Your task to perform on an android device: set an alarm Image 0: 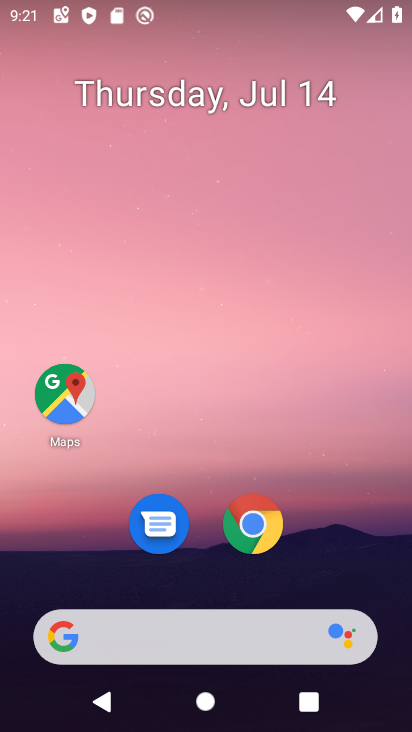
Step 0: drag from (318, 518) to (257, 59)
Your task to perform on an android device: set an alarm Image 1: 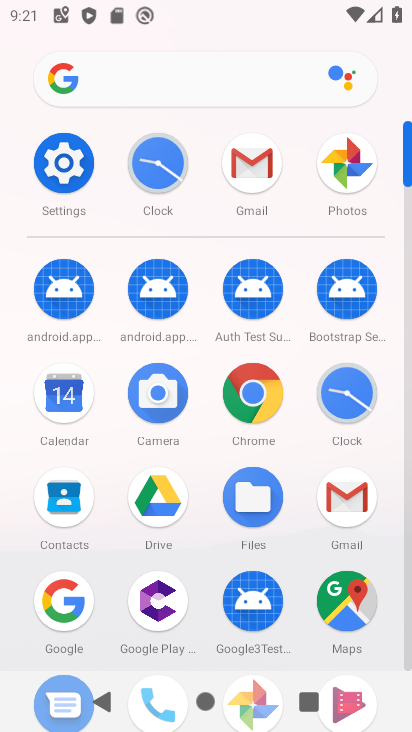
Step 1: click (165, 163)
Your task to perform on an android device: set an alarm Image 2: 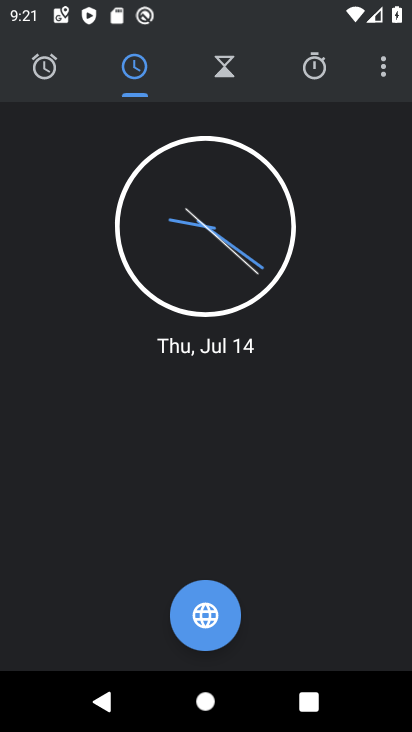
Step 2: click (53, 91)
Your task to perform on an android device: set an alarm Image 3: 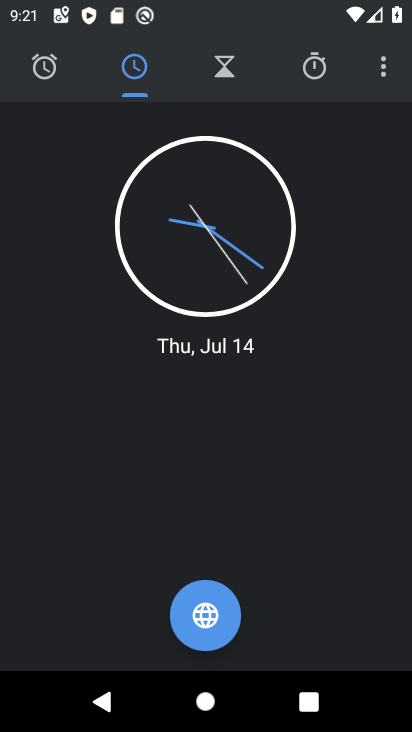
Step 3: click (45, 77)
Your task to perform on an android device: set an alarm Image 4: 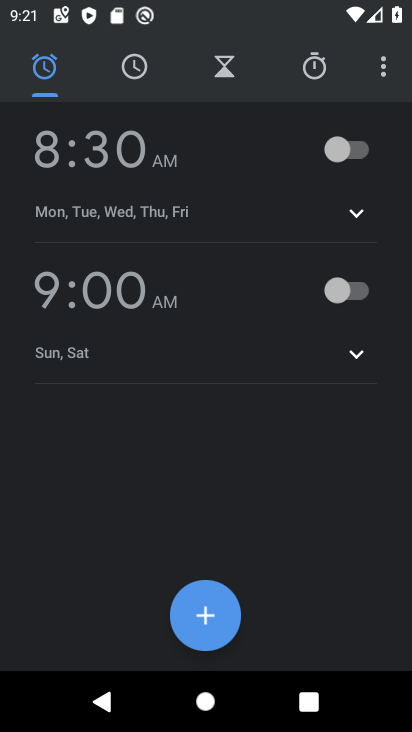
Step 4: click (222, 618)
Your task to perform on an android device: set an alarm Image 5: 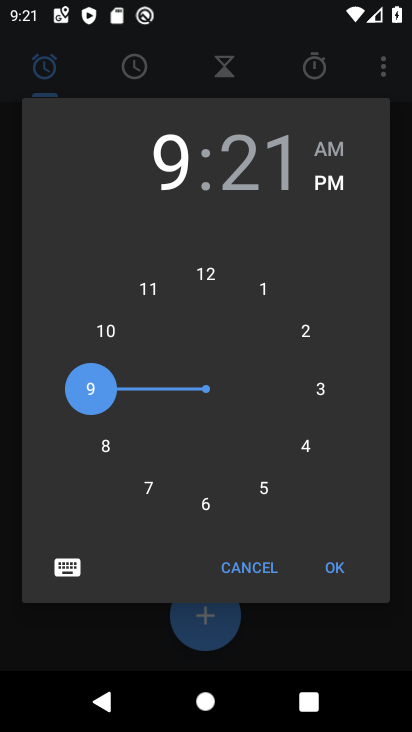
Step 5: click (276, 177)
Your task to perform on an android device: set an alarm Image 6: 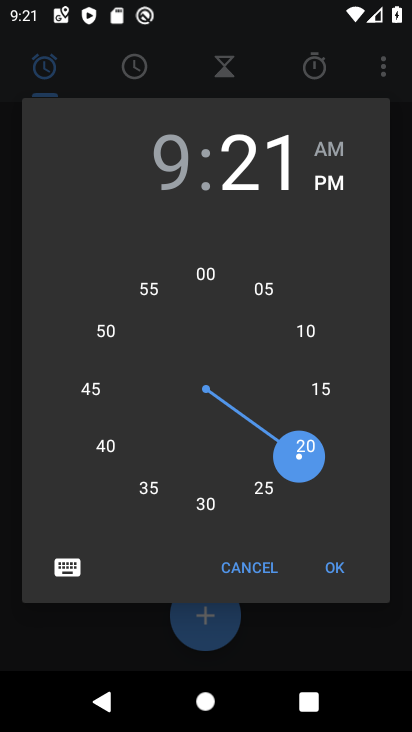
Step 6: click (208, 280)
Your task to perform on an android device: set an alarm Image 7: 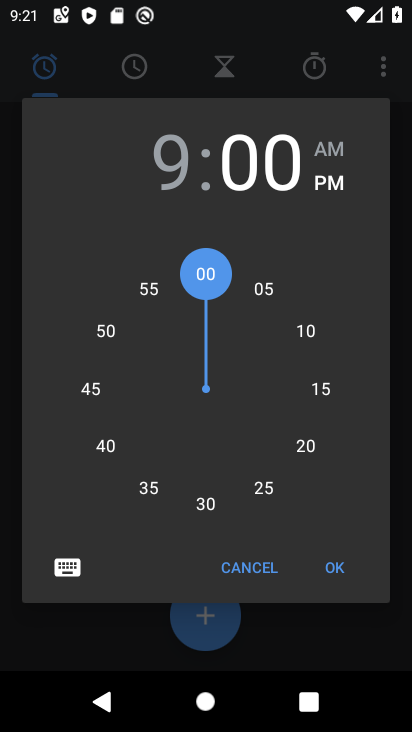
Step 7: click (331, 570)
Your task to perform on an android device: set an alarm Image 8: 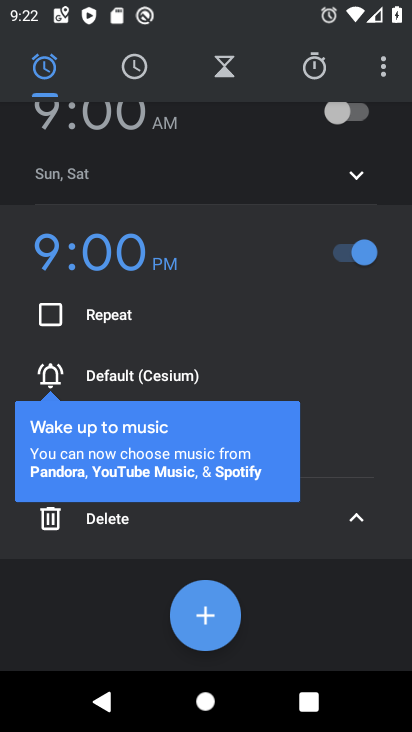
Step 8: task complete